Your task to perform on an android device: turn on location history Image 0: 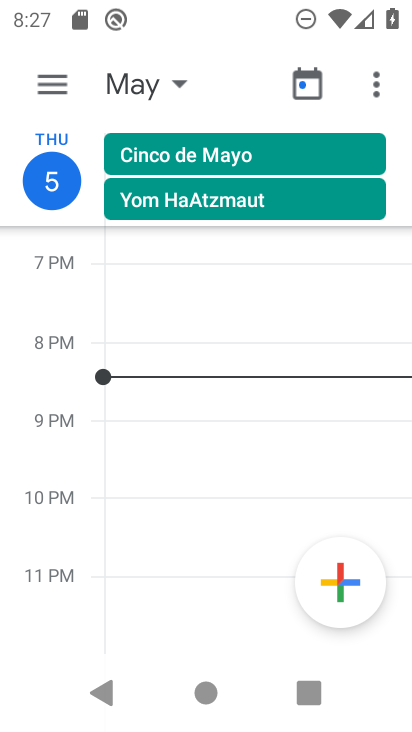
Step 0: press home button
Your task to perform on an android device: turn on location history Image 1: 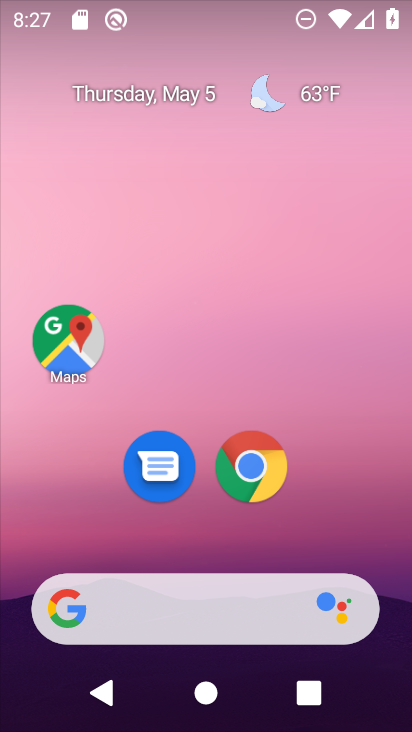
Step 1: drag from (208, 591) to (265, 56)
Your task to perform on an android device: turn on location history Image 2: 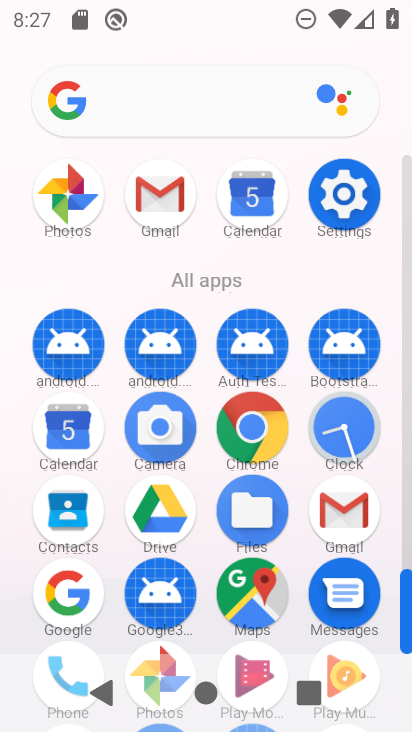
Step 2: click (321, 213)
Your task to perform on an android device: turn on location history Image 3: 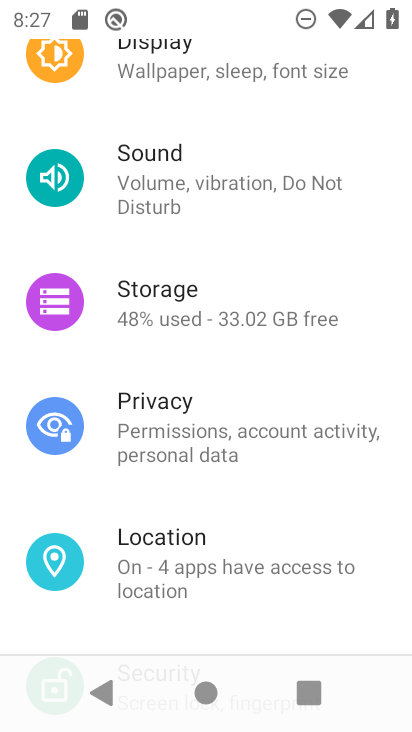
Step 3: click (173, 556)
Your task to perform on an android device: turn on location history Image 4: 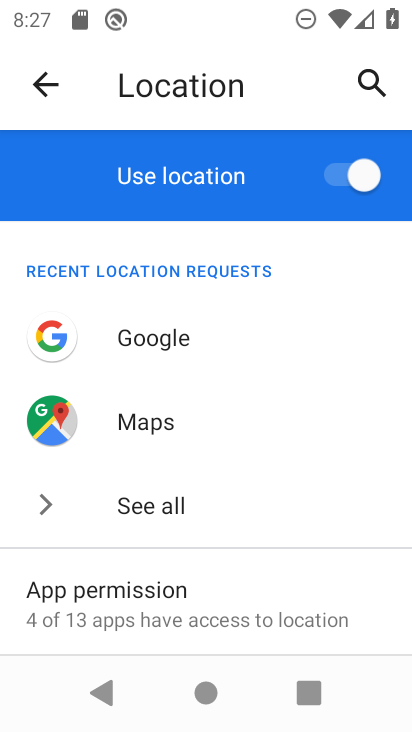
Step 4: drag from (190, 601) to (291, 33)
Your task to perform on an android device: turn on location history Image 5: 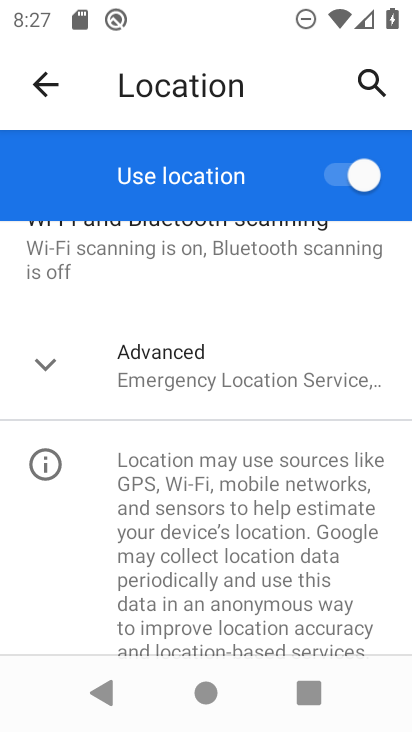
Step 5: click (192, 375)
Your task to perform on an android device: turn on location history Image 6: 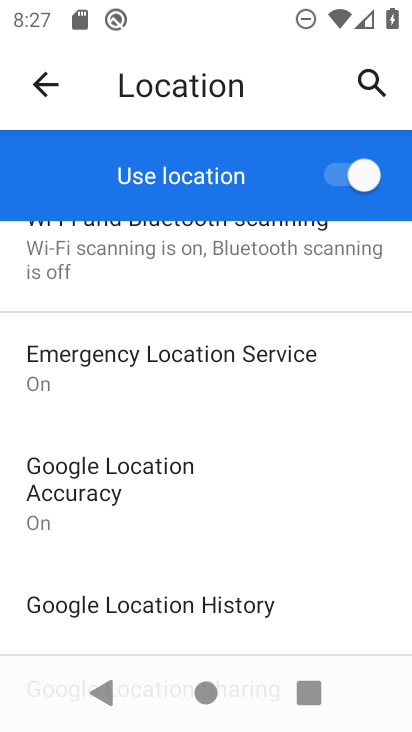
Step 6: click (154, 606)
Your task to perform on an android device: turn on location history Image 7: 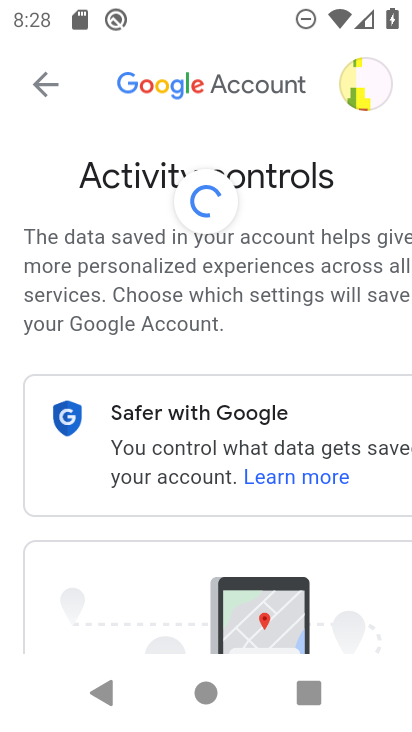
Step 7: task complete